Your task to perform on an android device: add a contact Image 0: 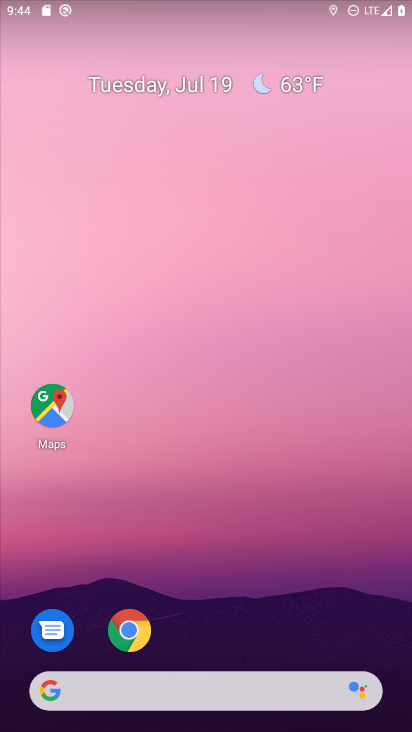
Step 0: drag from (192, 690) to (168, 21)
Your task to perform on an android device: add a contact Image 1: 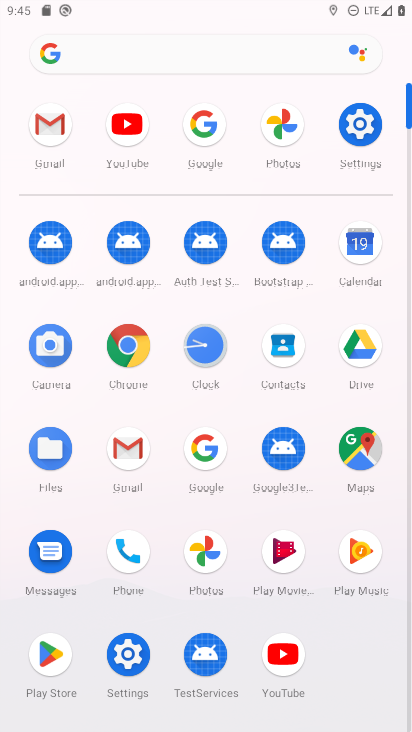
Step 1: click (282, 346)
Your task to perform on an android device: add a contact Image 2: 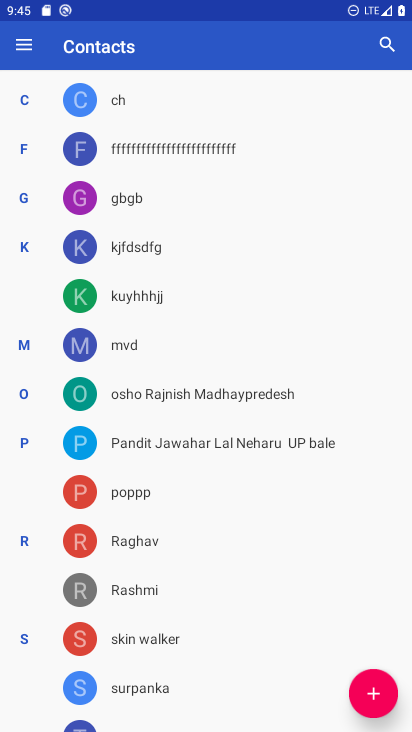
Step 2: click (375, 694)
Your task to perform on an android device: add a contact Image 3: 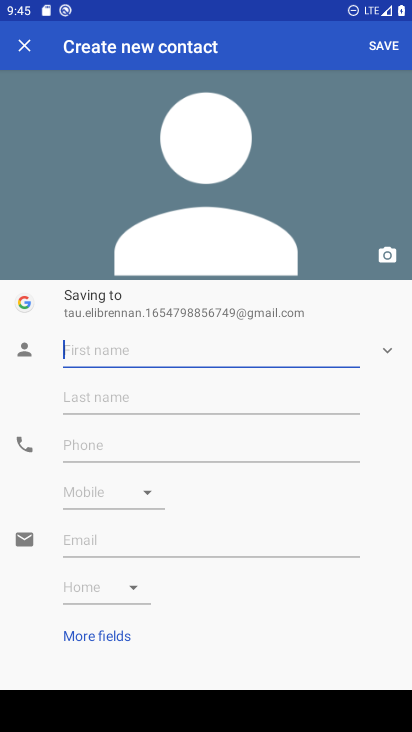
Step 3: type "Abhishek"
Your task to perform on an android device: add a contact Image 4: 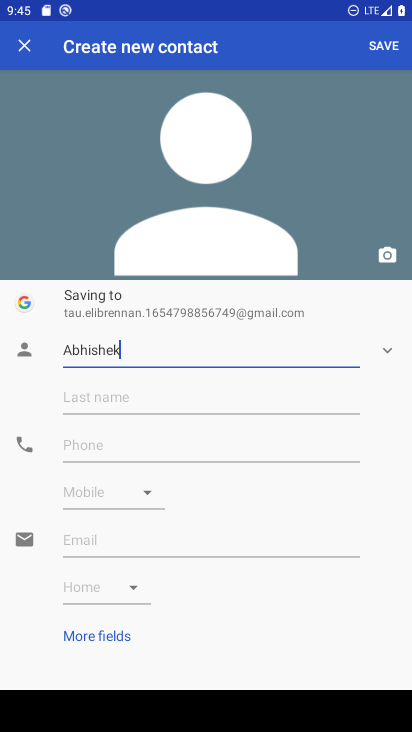
Step 4: click (207, 399)
Your task to perform on an android device: add a contact Image 5: 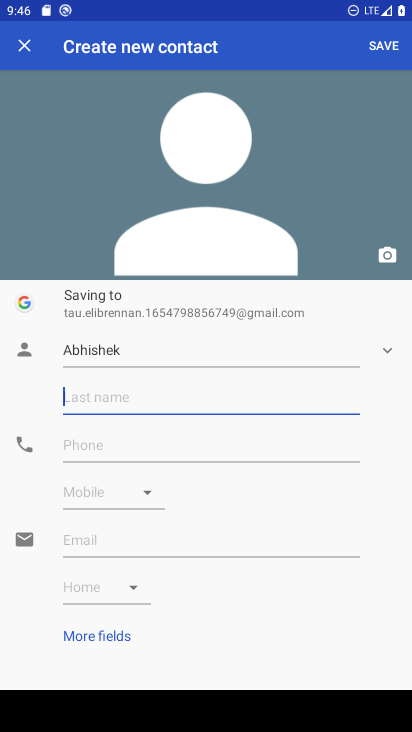
Step 5: type "Kherwar"
Your task to perform on an android device: add a contact Image 6: 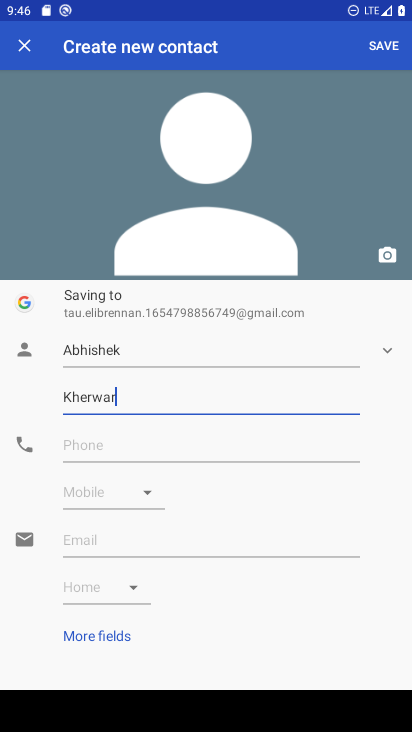
Step 6: click (188, 451)
Your task to perform on an android device: add a contact Image 7: 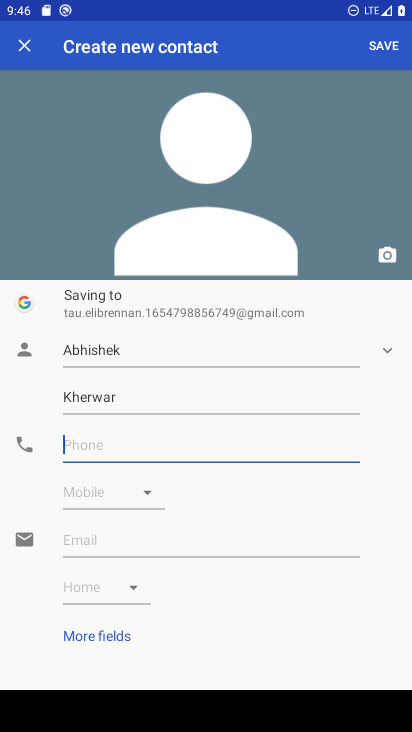
Step 7: type "09977553311"
Your task to perform on an android device: add a contact Image 8: 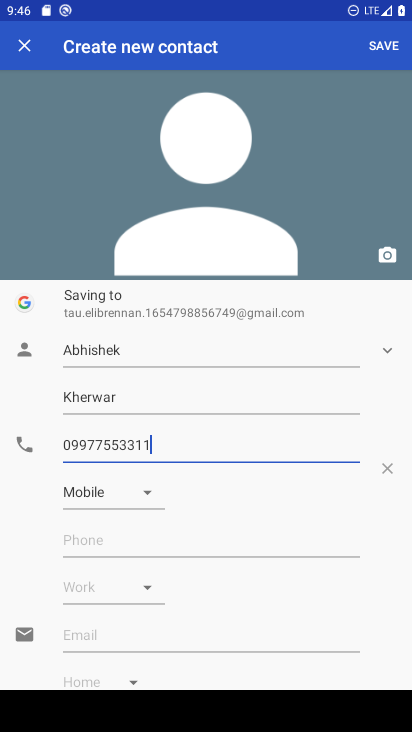
Step 8: click (383, 52)
Your task to perform on an android device: add a contact Image 9: 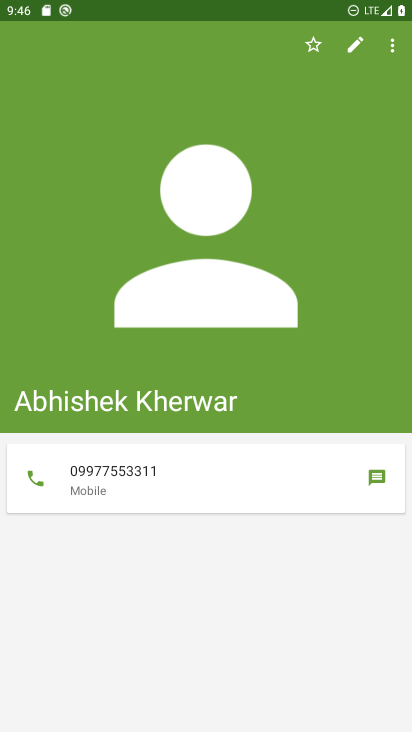
Step 9: task complete